Your task to perform on an android device: Open network settings Image 0: 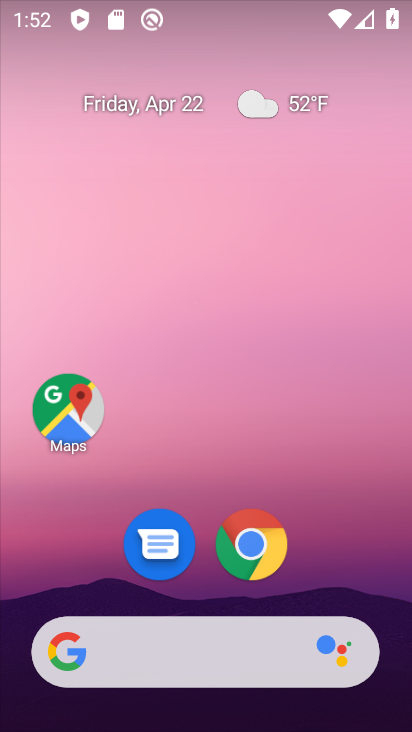
Step 0: drag from (322, 570) to (369, 103)
Your task to perform on an android device: Open network settings Image 1: 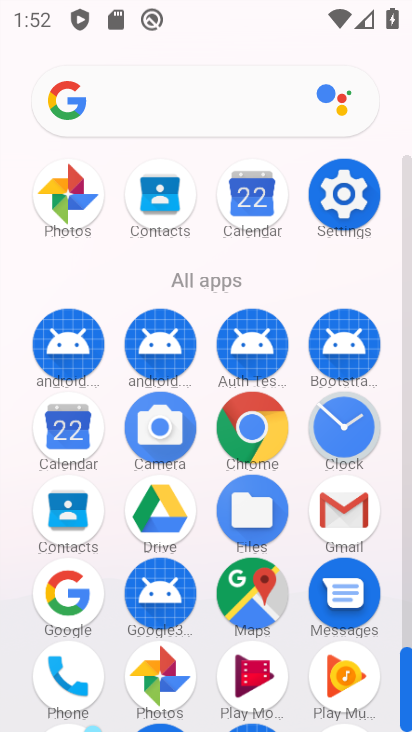
Step 1: click (333, 210)
Your task to perform on an android device: Open network settings Image 2: 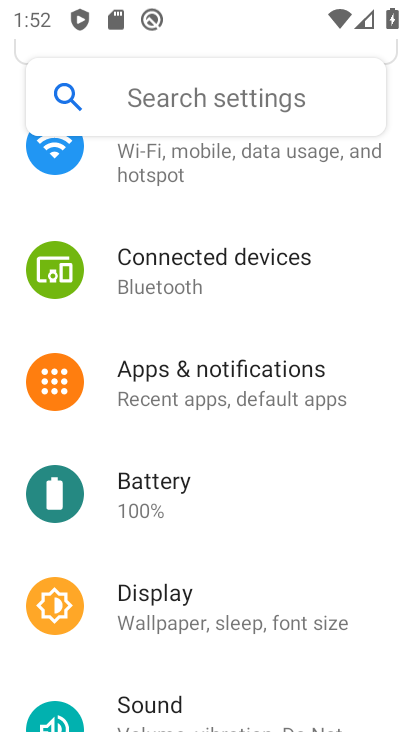
Step 2: click (260, 168)
Your task to perform on an android device: Open network settings Image 3: 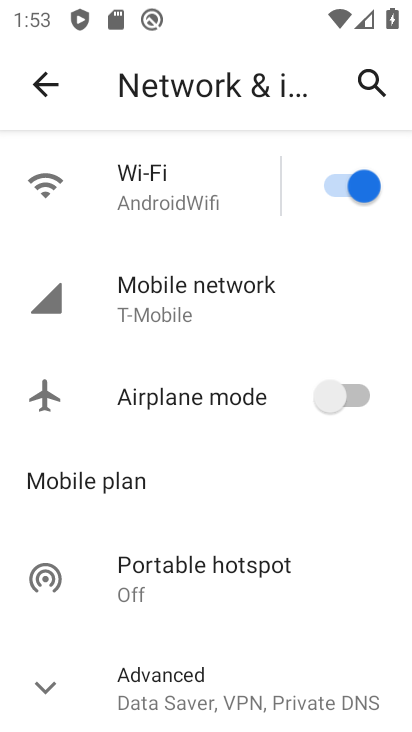
Step 3: click (163, 194)
Your task to perform on an android device: Open network settings Image 4: 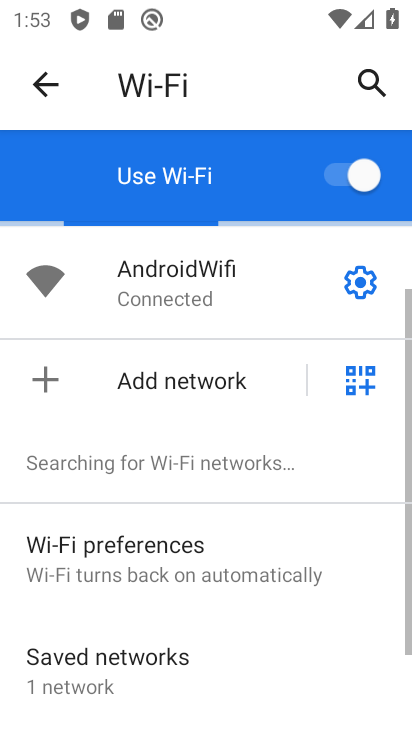
Step 4: click (45, 79)
Your task to perform on an android device: Open network settings Image 5: 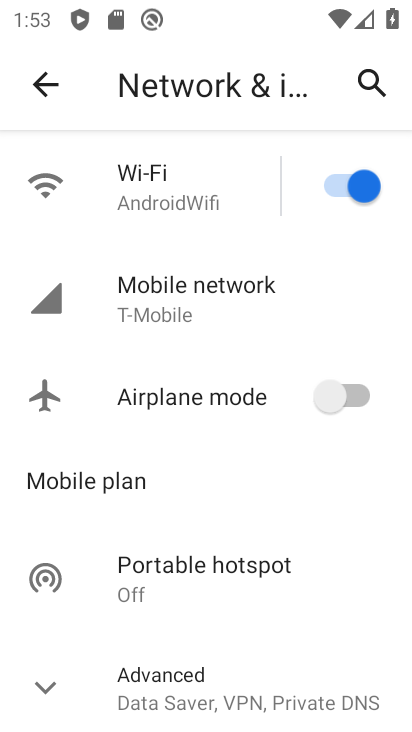
Step 5: task complete